Your task to perform on an android device: delete a single message in the gmail app Image 0: 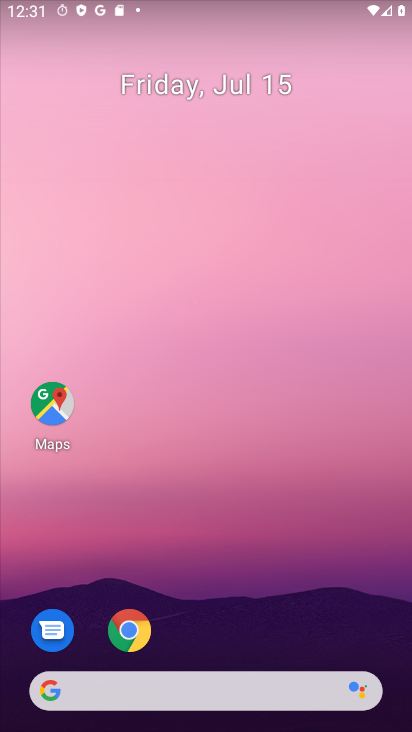
Step 0: drag from (240, 636) to (270, 137)
Your task to perform on an android device: delete a single message in the gmail app Image 1: 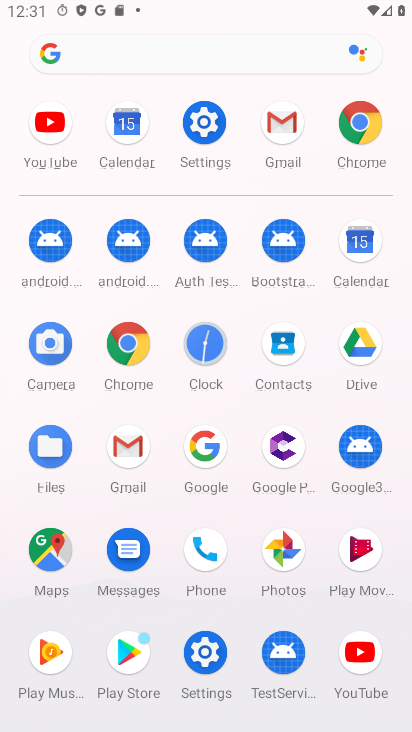
Step 1: click (132, 467)
Your task to perform on an android device: delete a single message in the gmail app Image 2: 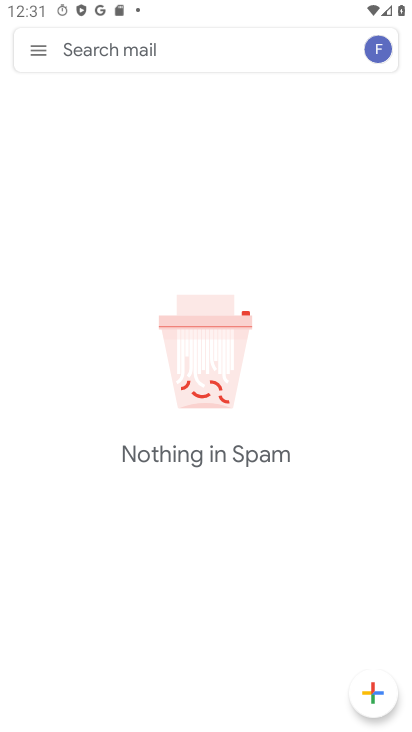
Step 2: task complete